Your task to perform on an android device: Open the web browser Image 0: 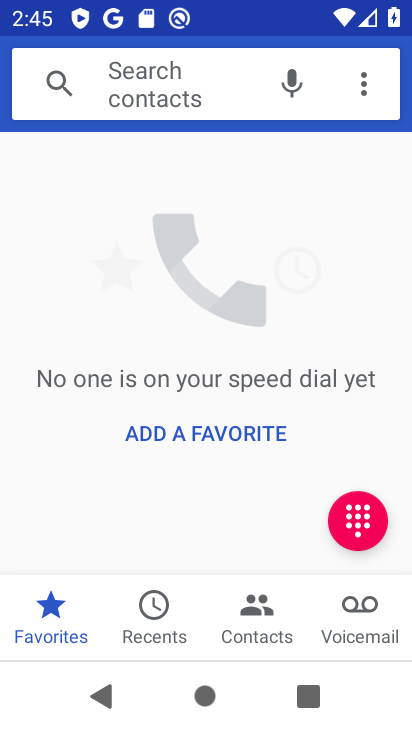
Step 0: press back button
Your task to perform on an android device: Open the web browser Image 1: 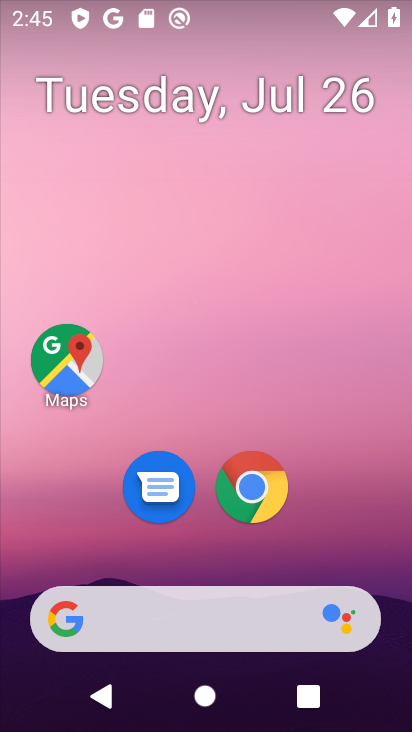
Step 1: click (264, 488)
Your task to perform on an android device: Open the web browser Image 2: 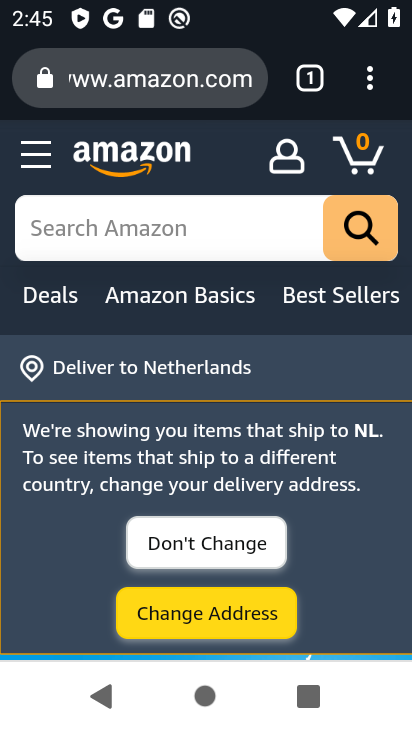
Step 2: task complete